Your task to perform on an android device: turn off improve location accuracy Image 0: 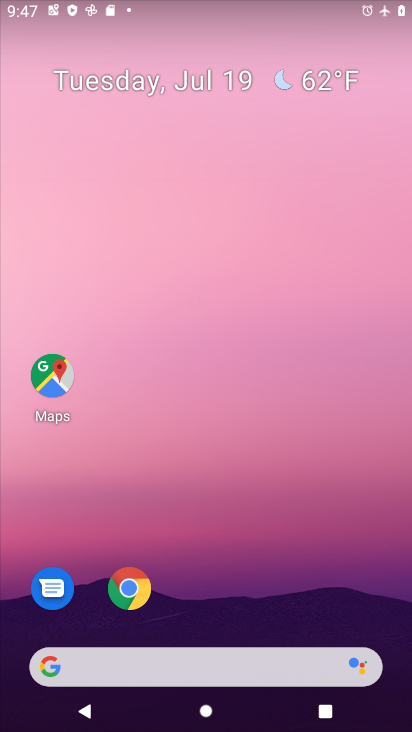
Step 0: drag from (295, 504) to (290, 120)
Your task to perform on an android device: turn off improve location accuracy Image 1: 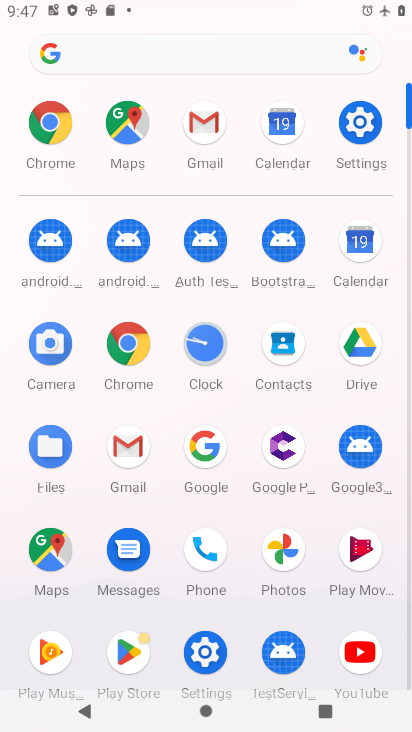
Step 1: click (354, 120)
Your task to perform on an android device: turn off improve location accuracy Image 2: 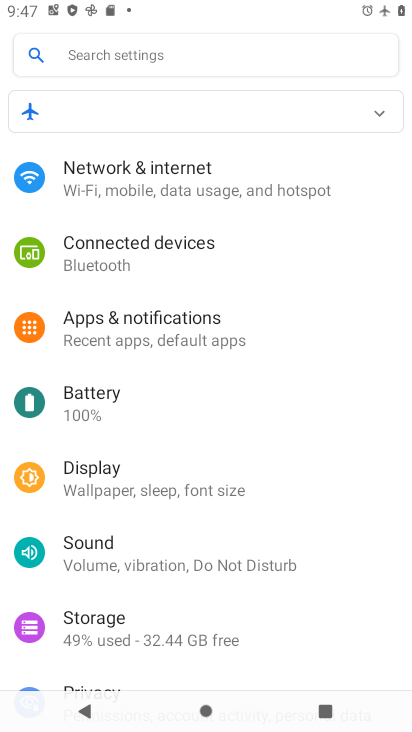
Step 2: drag from (121, 639) to (109, 173)
Your task to perform on an android device: turn off improve location accuracy Image 3: 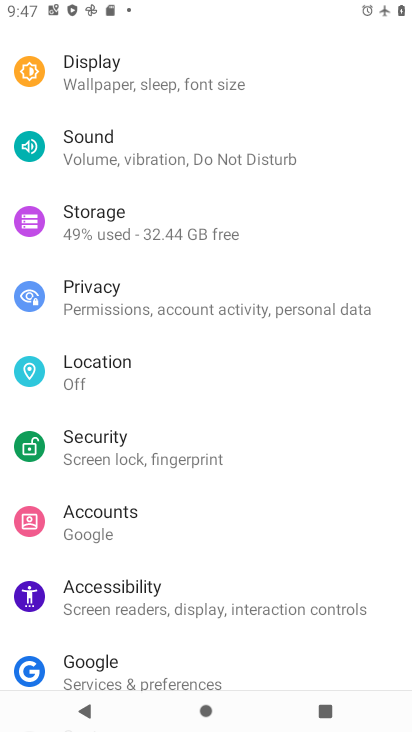
Step 3: click (68, 373)
Your task to perform on an android device: turn off improve location accuracy Image 4: 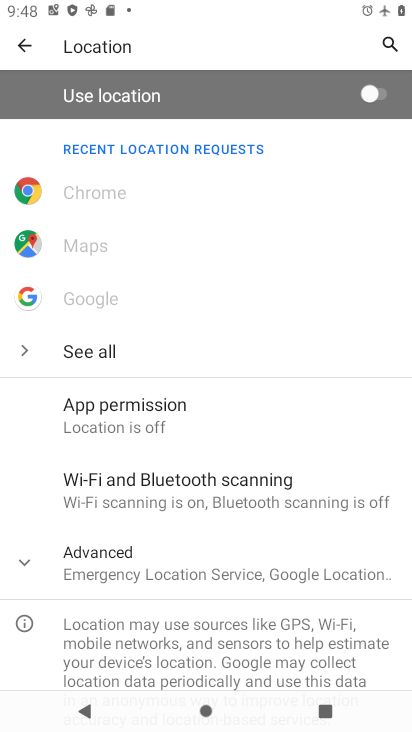
Step 4: click (148, 569)
Your task to perform on an android device: turn off improve location accuracy Image 5: 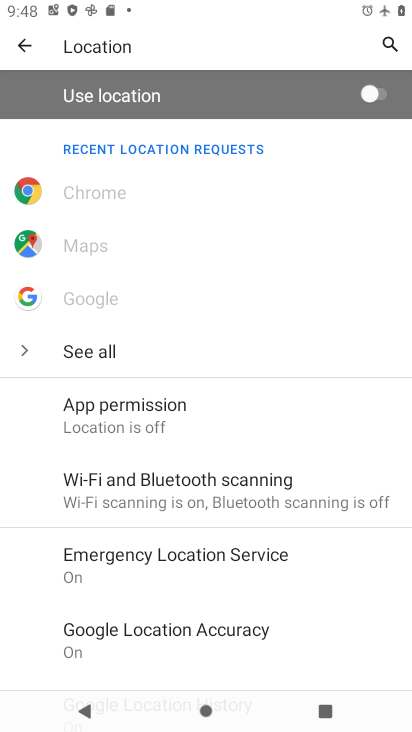
Step 5: drag from (133, 567) to (157, 270)
Your task to perform on an android device: turn off improve location accuracy Image 6: 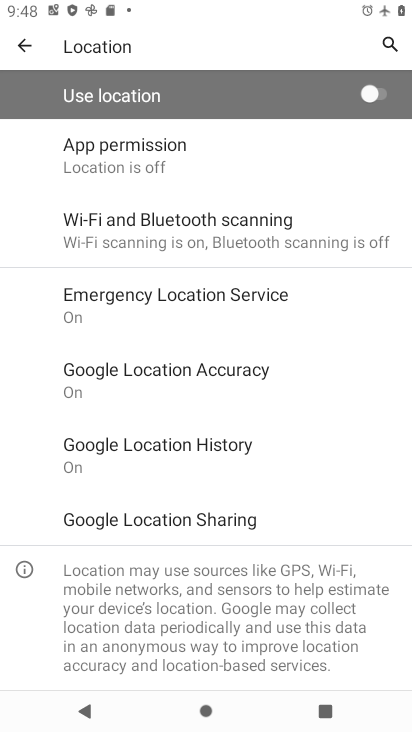
Step 6: click (168, 377)
Your task to perform on an android device: turn off improve location accuracy Image 7: 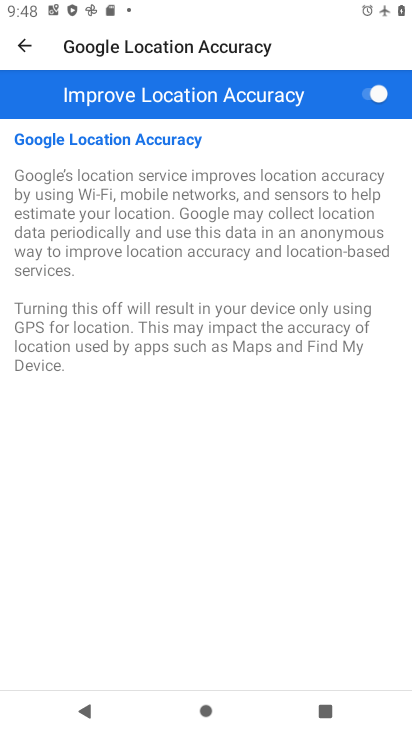
Step 7: click (379, 98)
Your task to perform on an android device: turn off improve location accuracy Image 8: 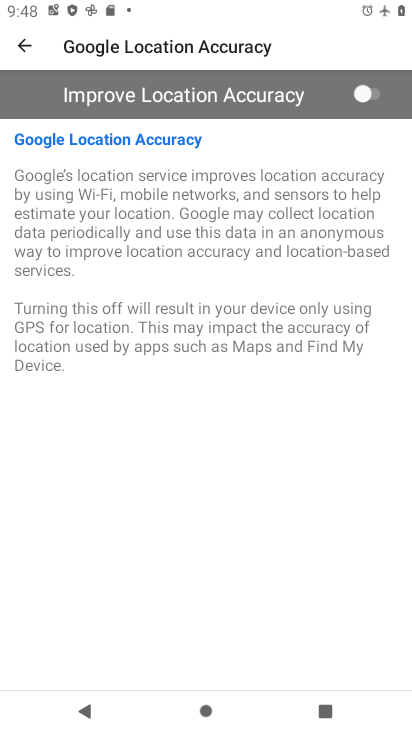
Step 8: task complete